Your task to perform on an android device: turn on data saver in the chrome app Image 0: 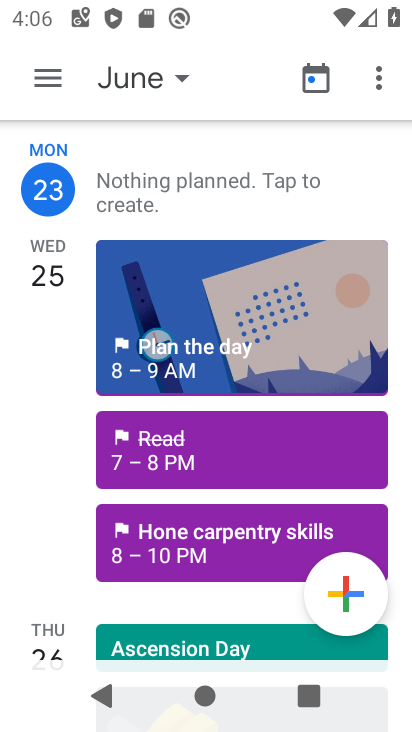
Step 0: press home button
Your task to perform on an android device: turn on data saver in the chrome app Image 1: 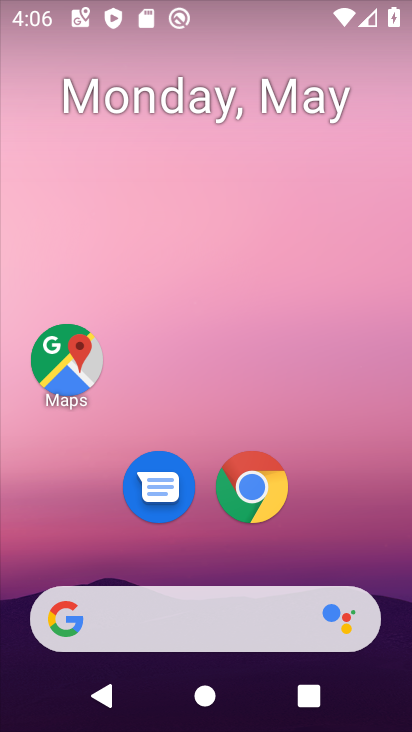
Step 1: click (249, 488)
Your task to perform on an android device: turn on data saver in the chrome app Image 2: 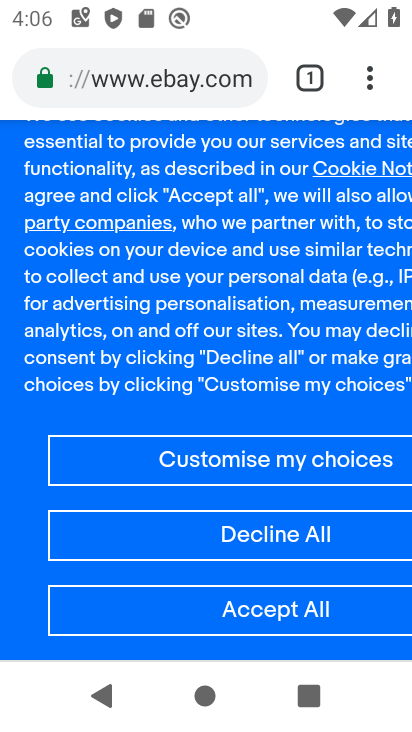
Step 2: click (365, 74)
Your task to perform on an android device: turn on data saver in the chrome app Image 3: 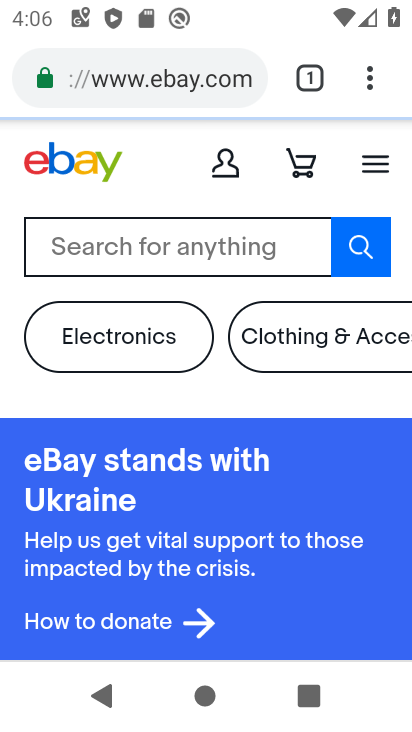
Step 3: click (369, 87)
Your task to perform on an android device: turn on data saver in the chrome app Image 4: 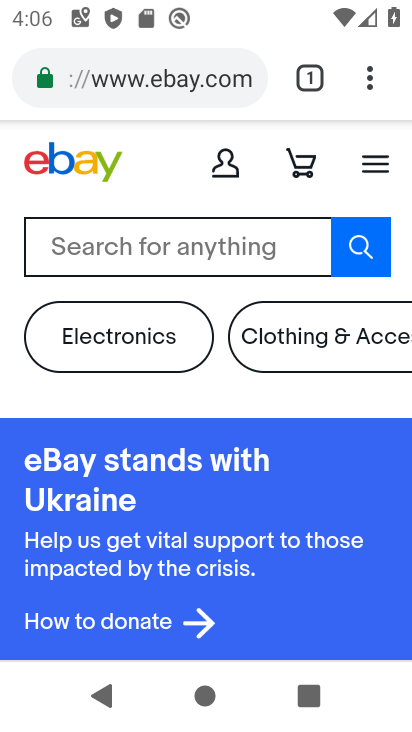
Step 4: click (369, 87)
Your task to perform on an android device: turn on data saver in the chrome app Image 5: 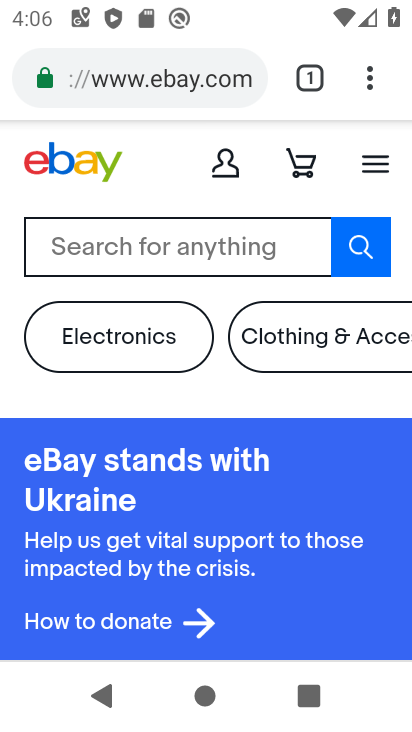
Step 5: click (308, 80)
Your task to perform on an android device: turn on data saver in the chrome app Image 6: 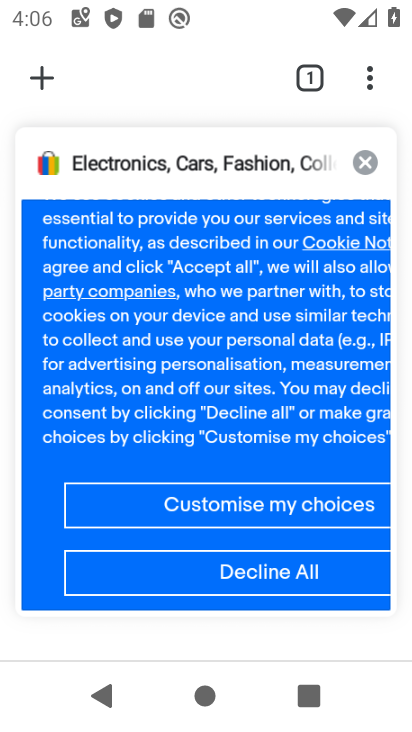
Step 6: click (372, 154)
Your task to perform on an android device: turn on data saver in the chrome app Image 7: 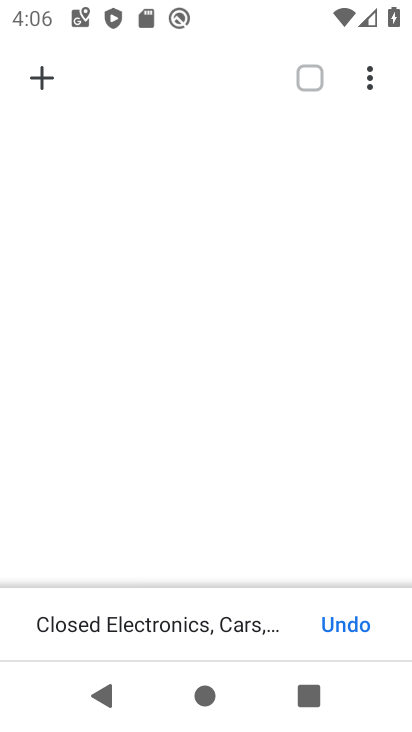
Step 7: click (367, 74)
Your task to perform on an android device: turn on data saver in the chrome app Image 8: 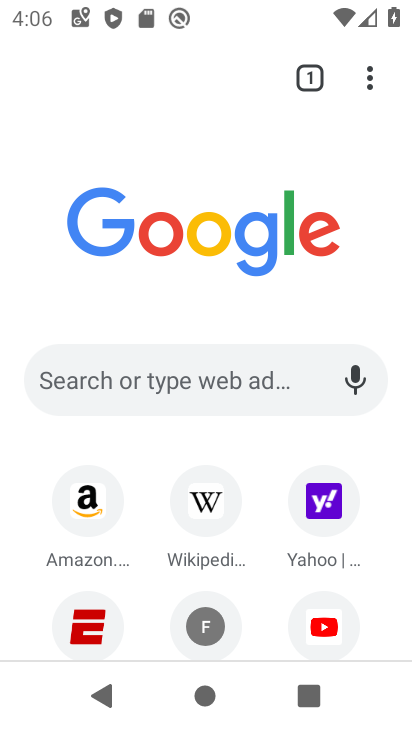
Step 8: click (359, 76)
Your task to perform on an android device: turn on data saver in the chrome app Image 9: 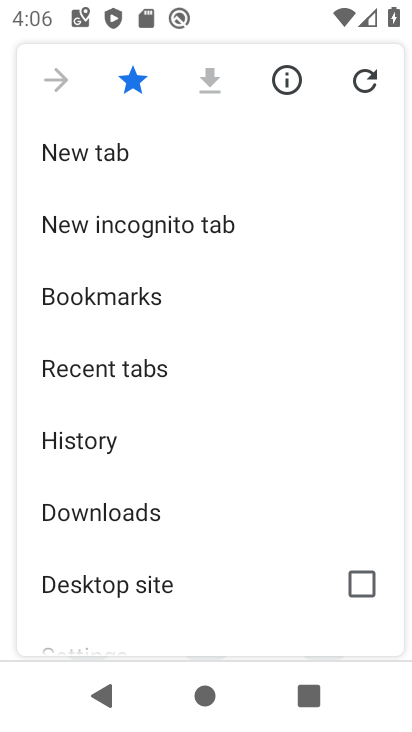
Step 9: drag from (144, 618) to (151, 298)
Your task to perform on an android device: turn on data saver in the chrome app Image 10: 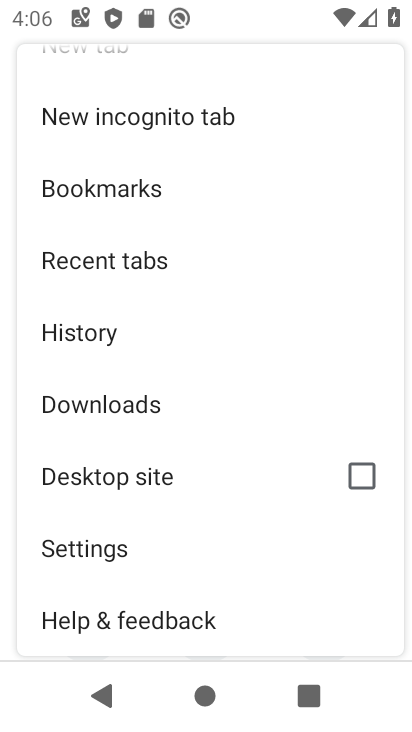
Step 10: click (116, 549)
Your task to perform on an android device: turn on data saver in the chrome app Image 11: 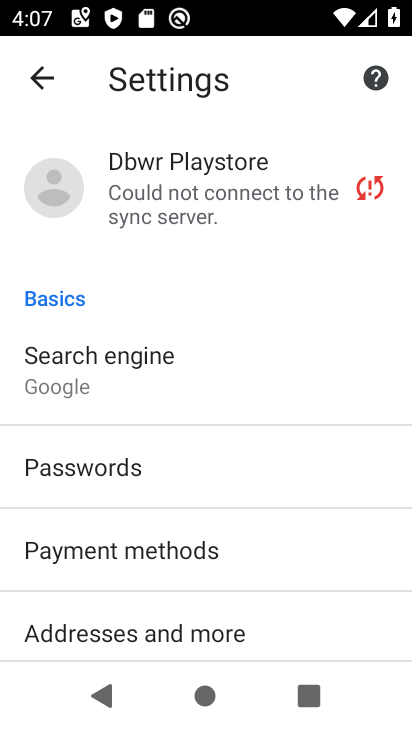
Step 11: drag from (182, 614) to (184, 342)
Your task to perform on an android device: turn on data saver in the chrome app Image 12: 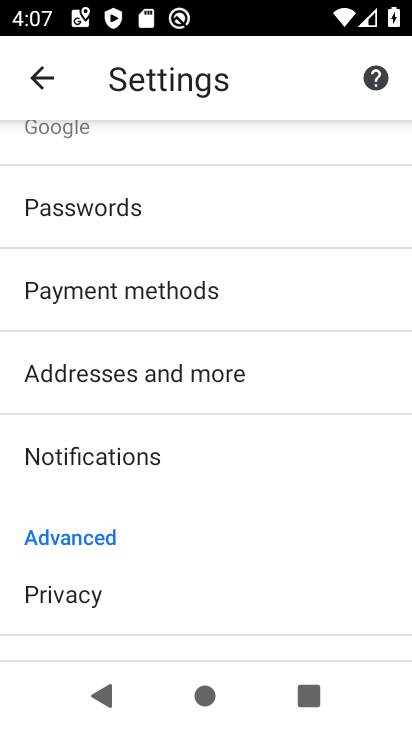
Step 12: drag from (88, 624) to (124, 375)
Your task to perform on an android device: turn on data saver in the chrome app Image 13: 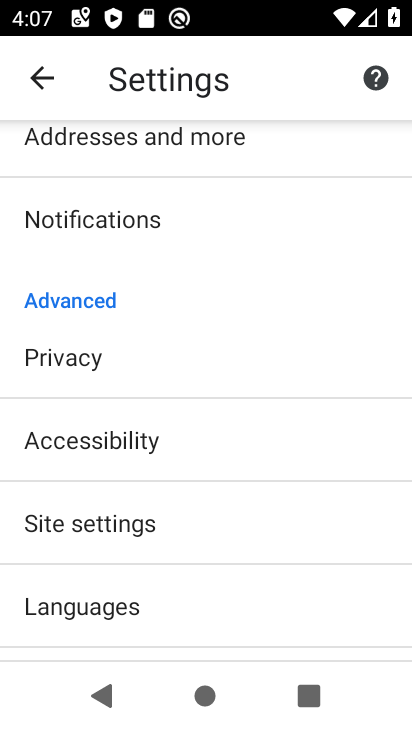
Step 13: drag from (82, 620) to (116, 347)
Your task to perform on an android device: turn on data saver in the chrome app Image 14: 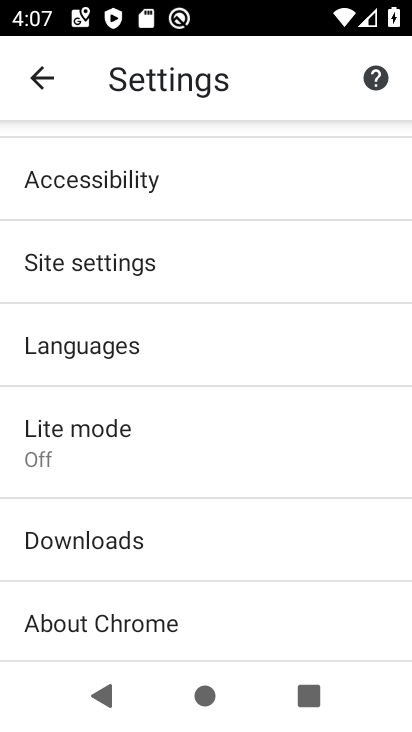
Step 14: click (73, 431)
Your task to perform on an android device: turn on data saver in the chrome app Image 15: 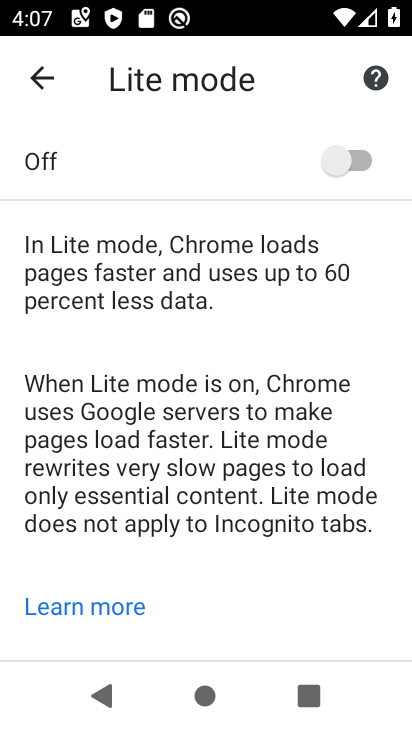
Step 15: click (360, 165)
Your task to perform on an android device: turn on data saver in the chrome app Image 16: 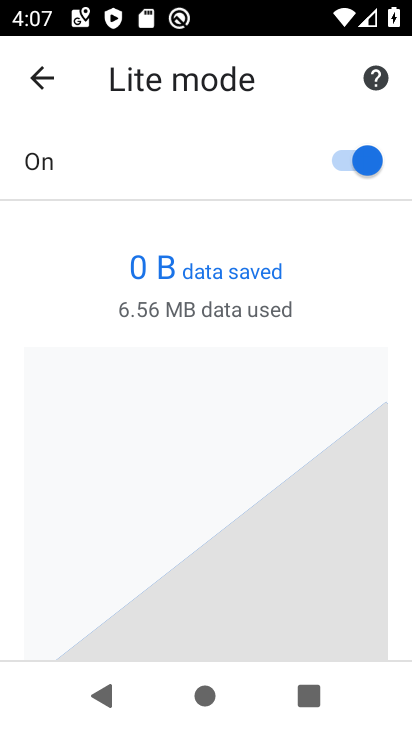
Step 16: task complete